Your task to perform on an android device: star an email in the gmail app Image 0: 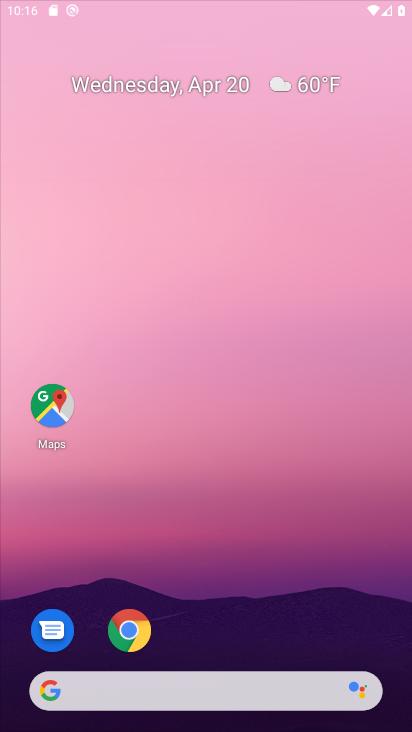
Step 0: click (293, 220)
Your task to perform on an android device: star an email in the gmail app Image 1: 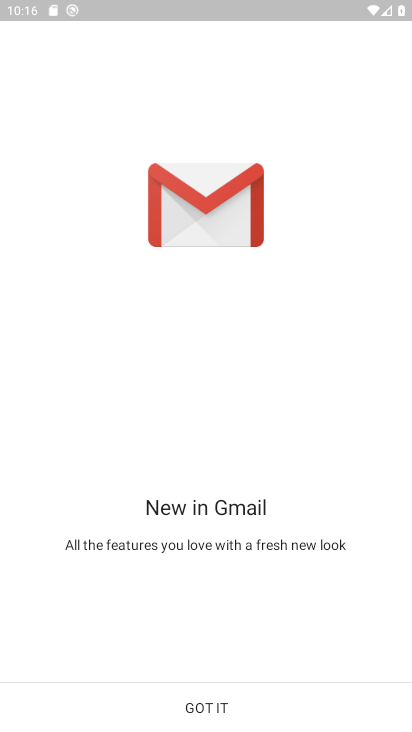
Step 1: click (231, 704)
Your task to perform on an android device: star an email in the gmail app Image 2: 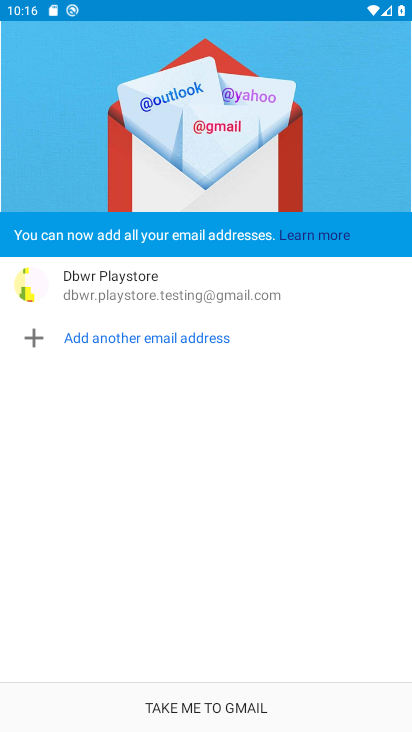
Step 2: click (228, 700)
Your task to perform on an android device: star an email in the gmail app Image 3: 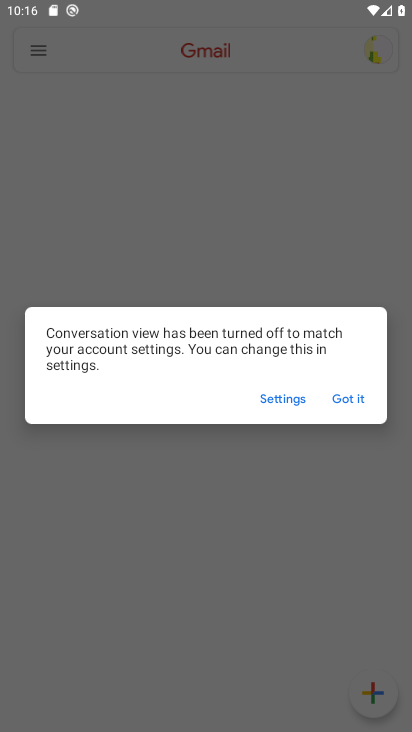
Step 3: click (341, 395)
Your task to perform on an android device: star an email in the gmail app Image 4: 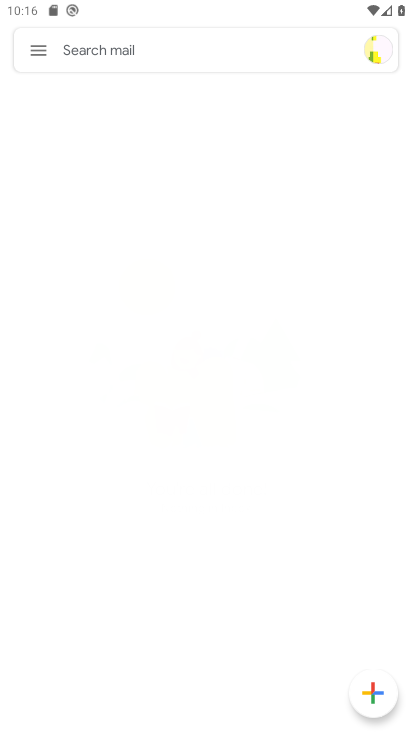
Step 4: click (43, 44)
Your task to perform on an android device: star an email in the gmail app Image 5: 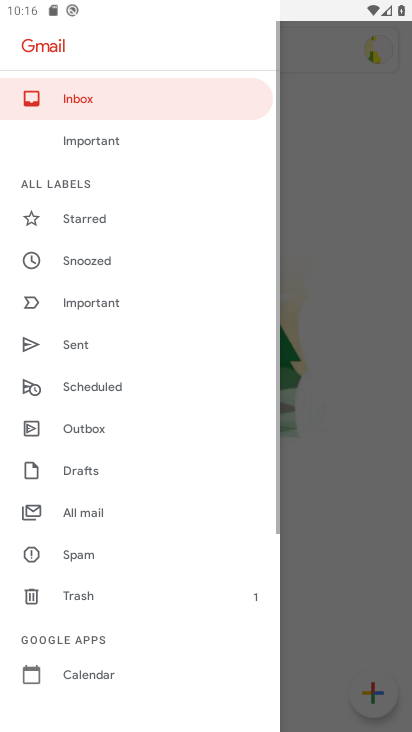
Step 5: click (126, 228)
Your task to perform on an android device: star an email in the gmail app Image 6: 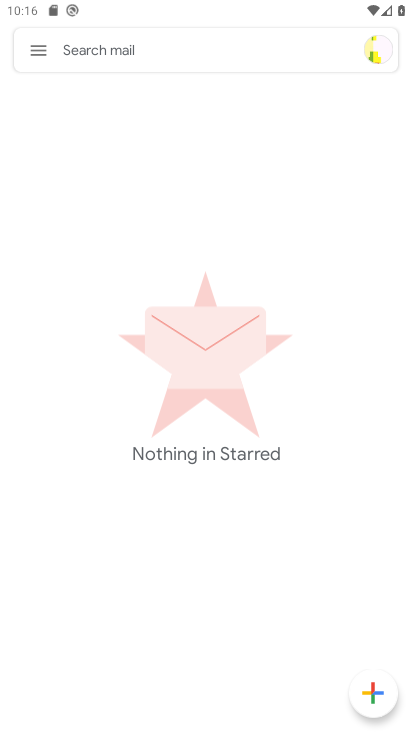
Step 6: task complete